Your task to perform on an android device: Open the calendar and show me this week's events Image 0: 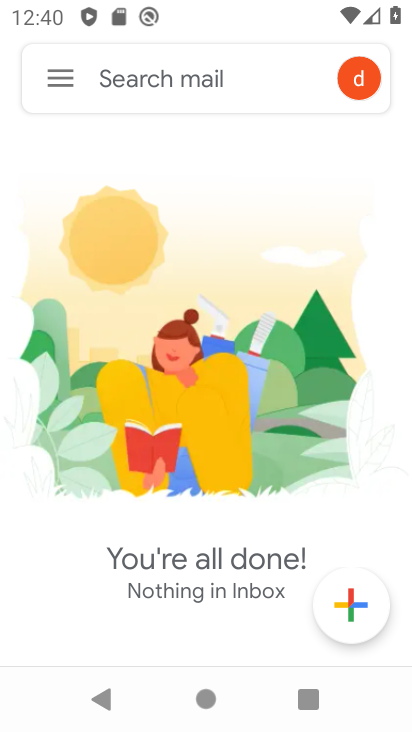
Step 0: press home button
Your task to perform on an android device: Open the calendar and show me this week's events Image 1: 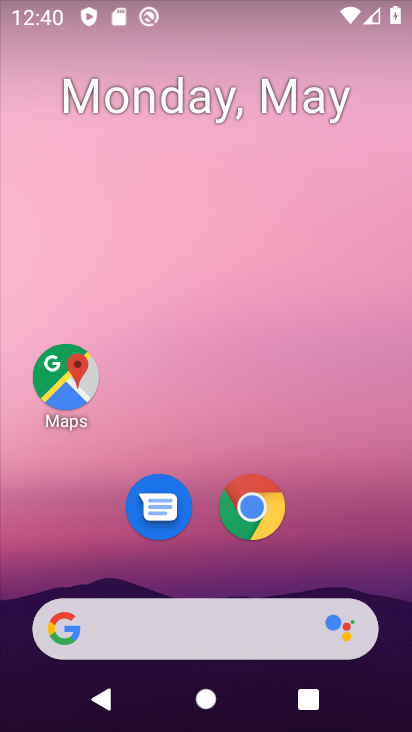
Step 1: drag from (222, 722) to (224, 294)
Your task to perform on an android device: Open the calendar and show me this week's events Image 2: 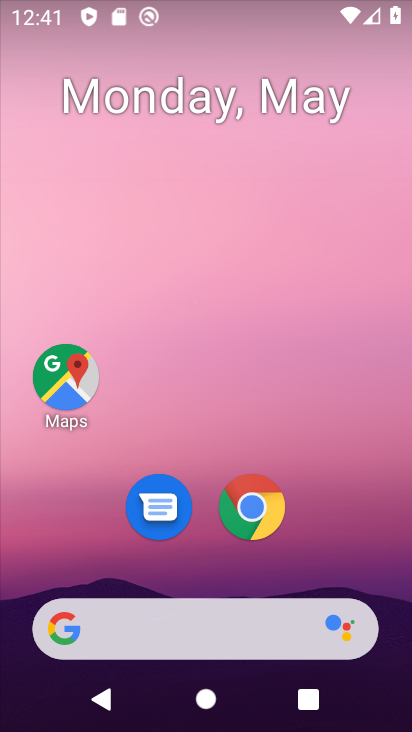
Step 2: drag from (231, 642) to (231, 97)
Your task to perform on an android device: Open the calendar and show me this week's events Image 3: 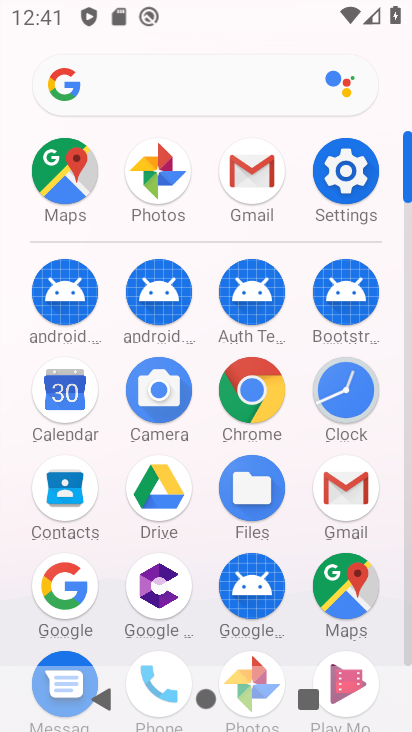
Step 3: click (68, 394)
Your task to perform on an android device: Open the calendar and show me this week's events Image 4: 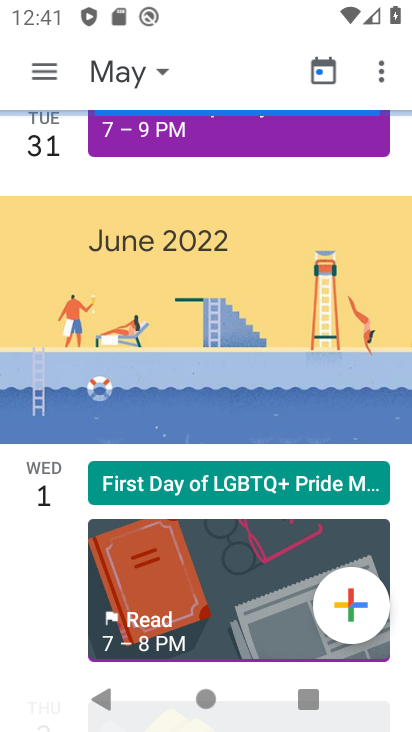
Step 4: click (110, 72)
Your task to perform on an android device: Open the calendar and show me this week's events Image 5: 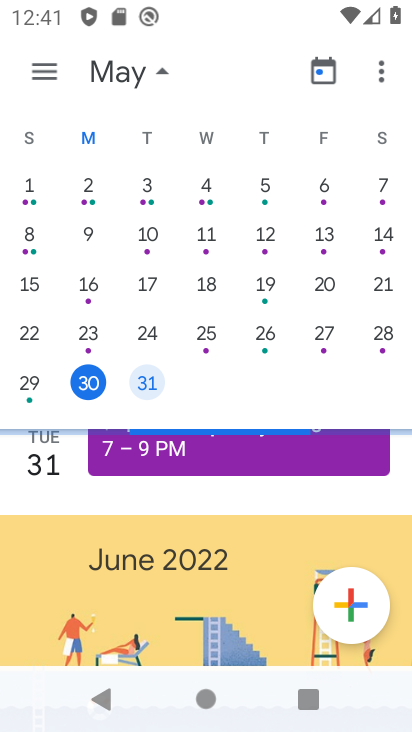
Step 5: click (49, 67)
Your task to perform on an android device: Open the calendar and show me this week's events Image 6: 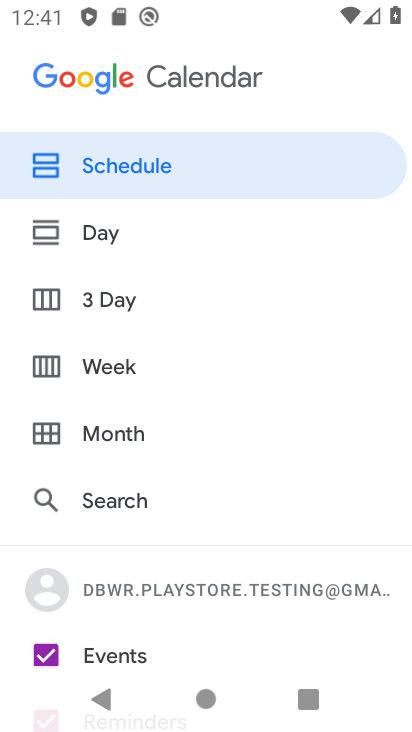
Step 6: drag from (96, 642) to (99, 226)
Your task to perform on an android device: Open the calendar and show me this week's events Image 7: 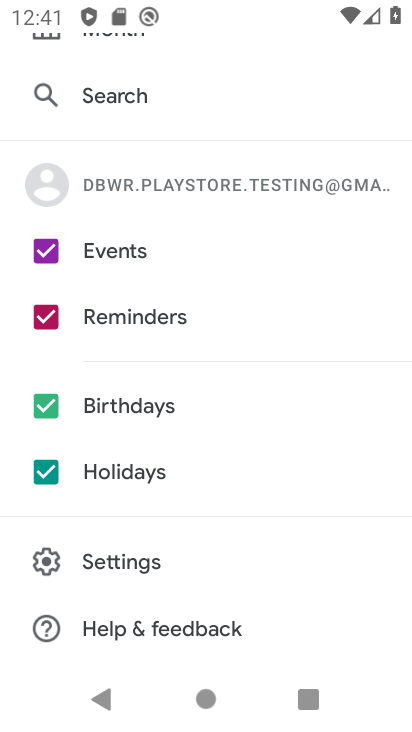
Step 7: click (51, 471)
Your task to perform on an android device: Open the calendar and show me this week's events Image 8: 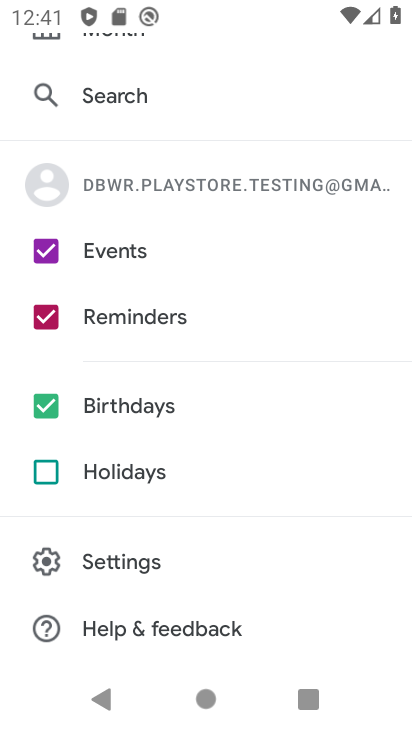
Step 8: click (47, 397)
Your task to perform on an android device: Open the calendar and show me this week's events Image 9: 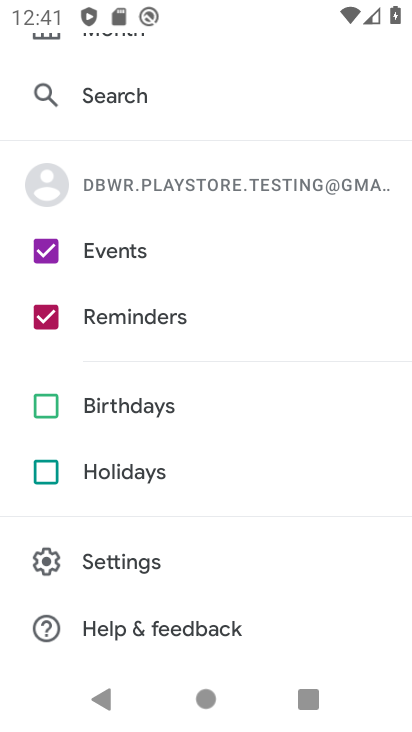
Step 9: click (49, 312)
Your task to perform on an android device: Open the calendar and show me this week's events Image 10: 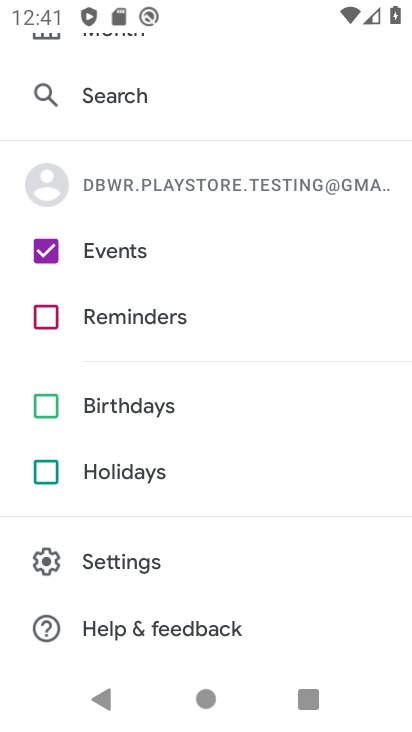
Step 10: drag from (304, 121) to (316, 545)
Your task to perform on an android device: Open the calendar and show me this week's events Image 11: 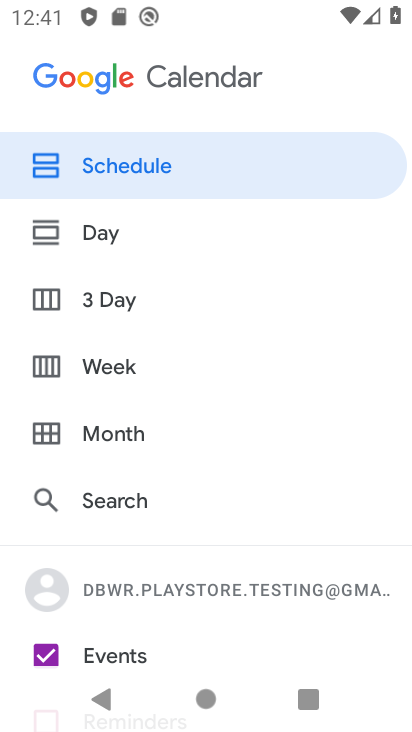
Step 11: click (103, 369)
Your task to perform on an android device: Open the calendar and show me this week's events Image 12: 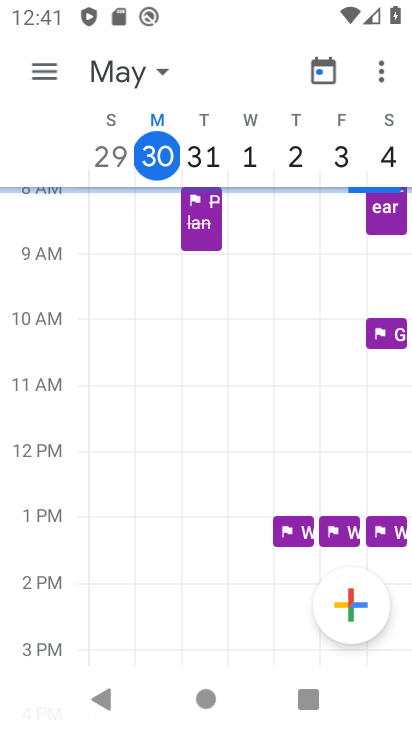
Step 12: task complete